Your task to perform on an android device: Show me recent news Image 0: 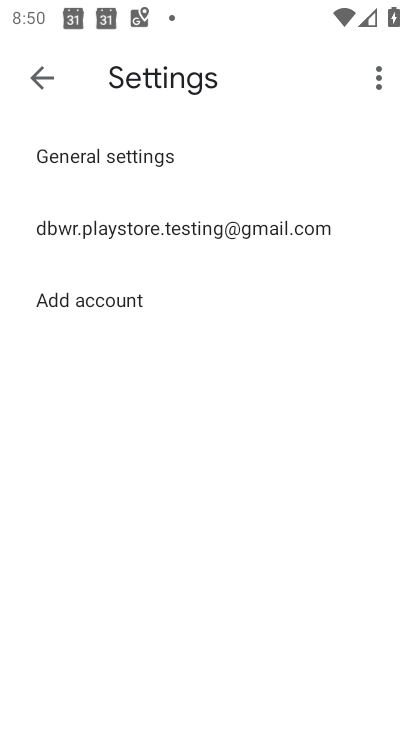
Step 0: press home button
Your task to perform on an android device: Show me recent news Image 1: 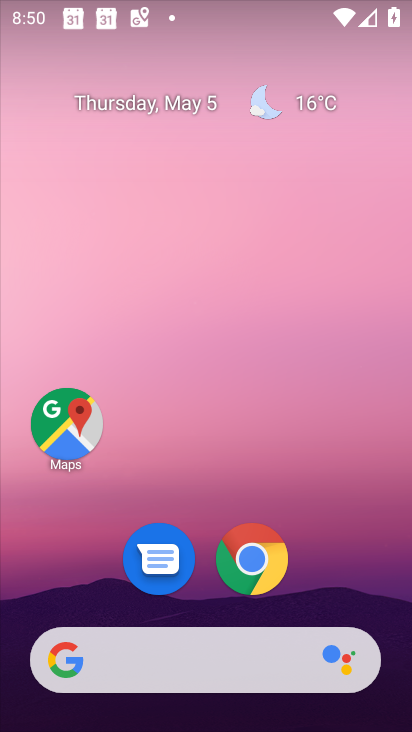
Step 1: task complete